Your task to perform on an android device: Open Yahoo.com Image 0: 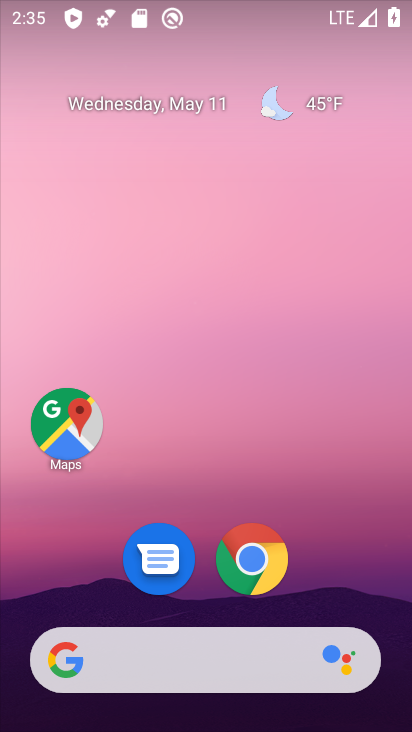
Step 0: click (261, 549)
Your task to perform on an android device: Open Yahoo.com Image 1: 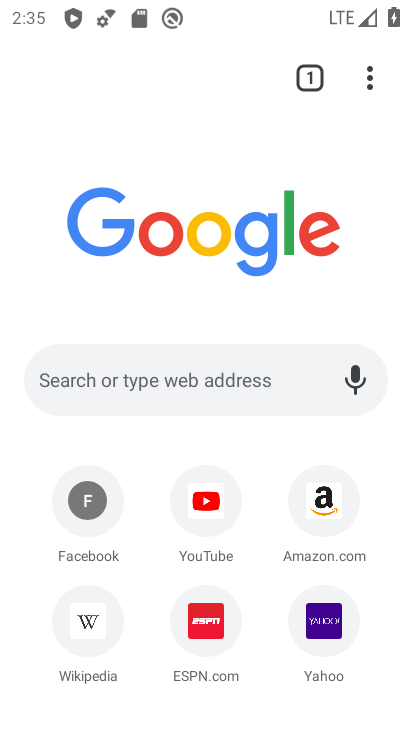
Step 1: click (317, 621)
Your task to perform on an android device: Open Yahoo.com Image 2: 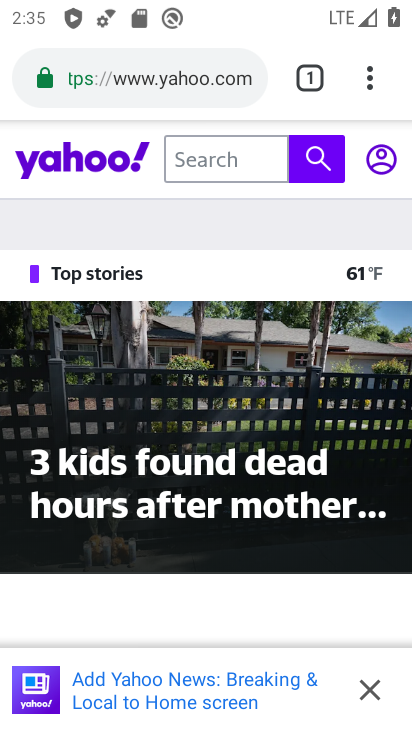
Step 2: task complete